Your task to perform on an android device: turn on sleep mode Image 0: 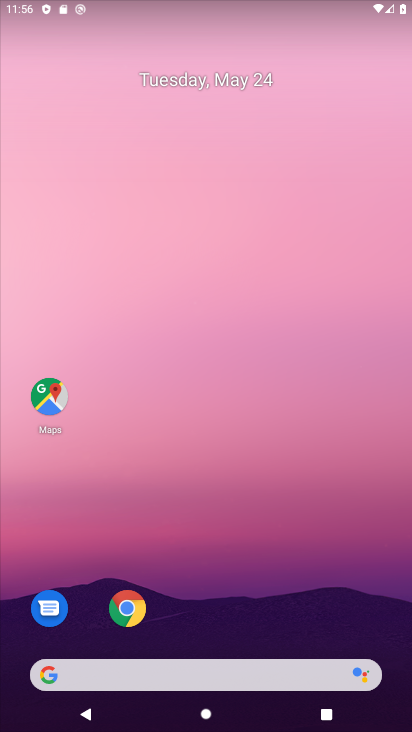
Step 0: drag from (286, 630) to (215, 153)
Your task to perform on an android device: turn on sleep mode Image 1: 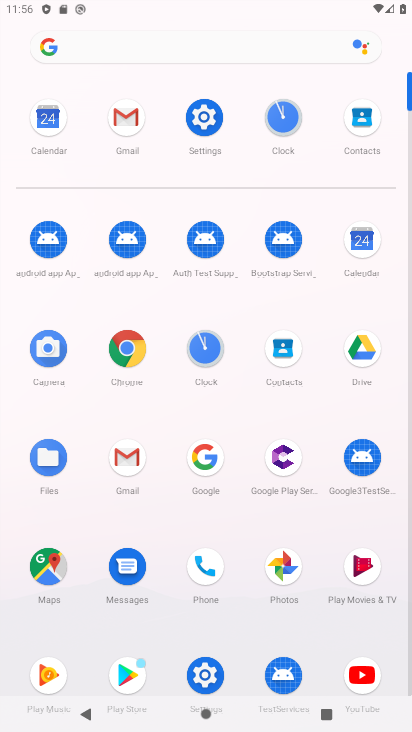
Step 1: click (197, 117)
Your task to perform on an android device: turn on sleep mode Image 2: 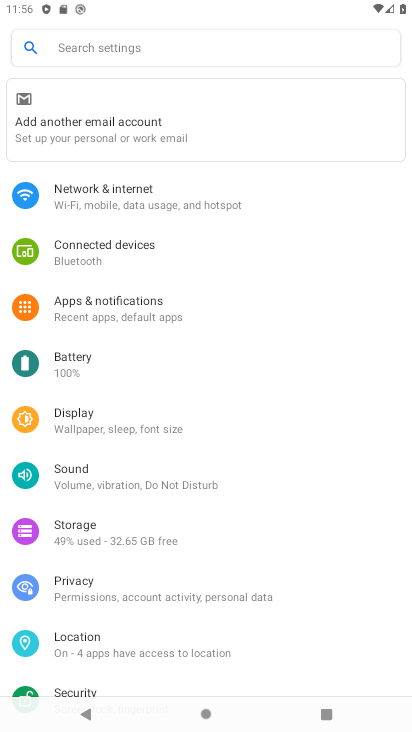
Step 2: click (216, 441)
Your task to perform on an android device: turn on sleep mode Image 3: 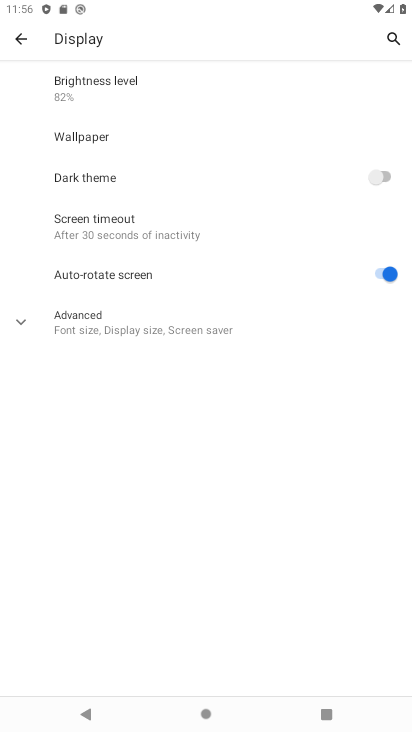
Step 3: click (167, 233)
Your task to perform on an android device: turn on sleep mode Image 4: 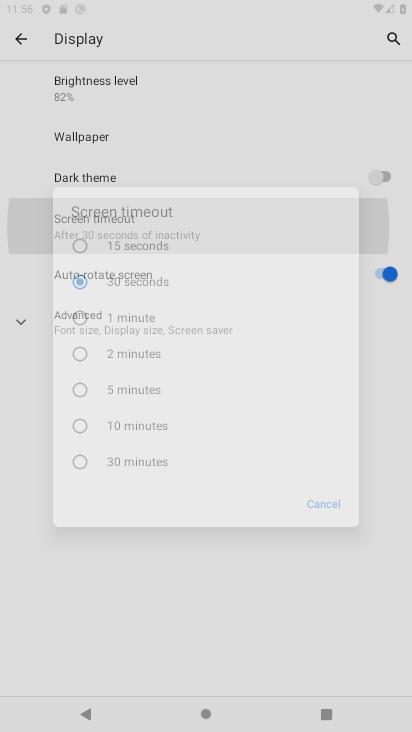
Step 4: click (167, 233)
Your task to perform on an android device: turn on sleep mode Image 5: 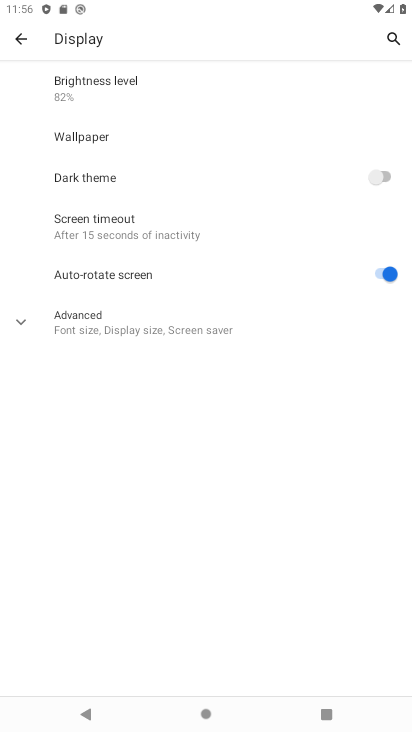
Step 5: task complete